Your task to perform on an android device: Open notification settings Image 0: 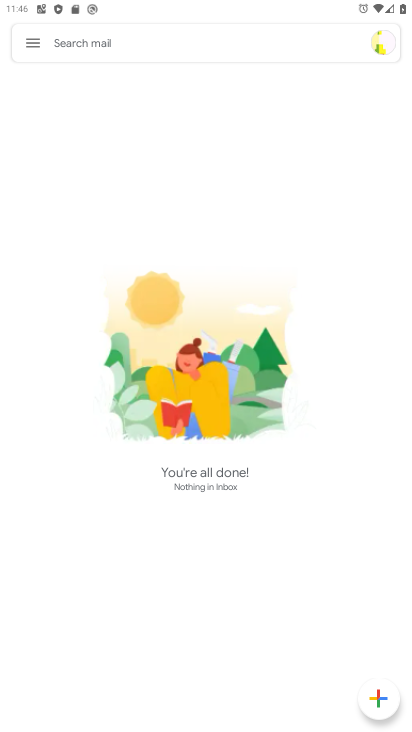
Step 0: press home button
Your task to perform on an android device: Open notification settings Image 1: 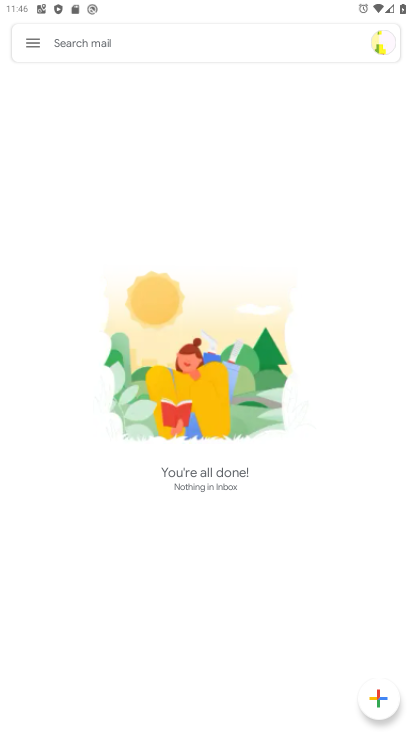
Step 1: press home button
Your task to perform on an android device: Open notification settings Image 2: 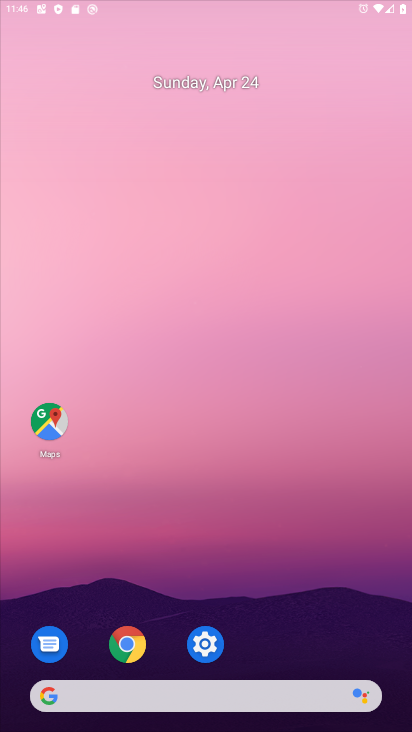
Step 2: press home button
Your task to perform on an android device: Open notification settings Image 3: 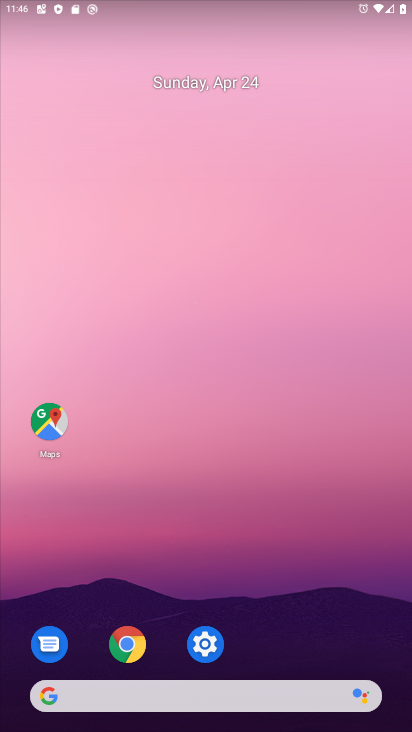
Step 3: drag from (206, 580) to (82, 10)
Your task to perform on an android device: Open notification settings Image 4: 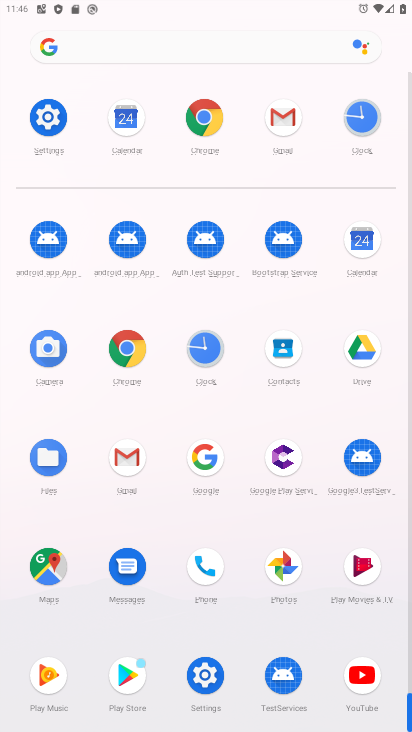
Step 4: click (42, 119)
Your task to perform on an android device: Open notification settings Image 5: 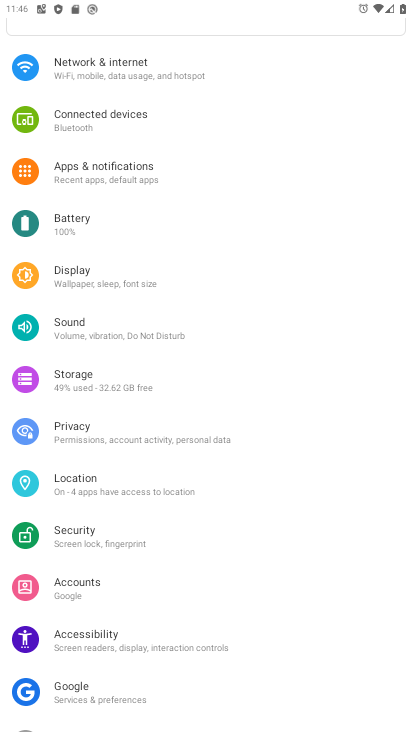
Step 5: click (95, 158)
Your task to perform on an android device: Open notification settings Image 6: 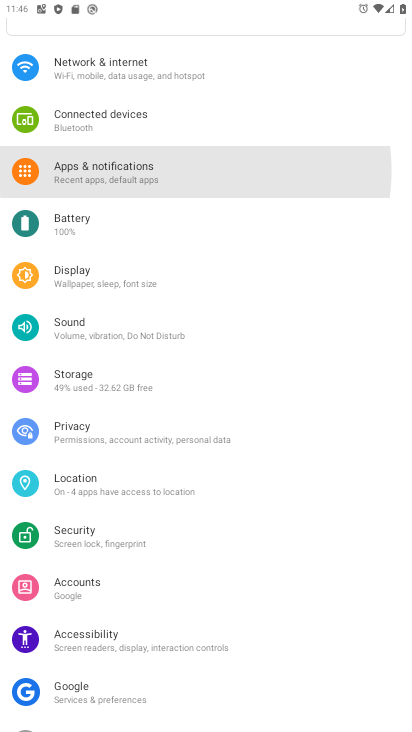
Step 6: click (95, 158)
Your task to perform on an android device: Open notification settings Image 7: 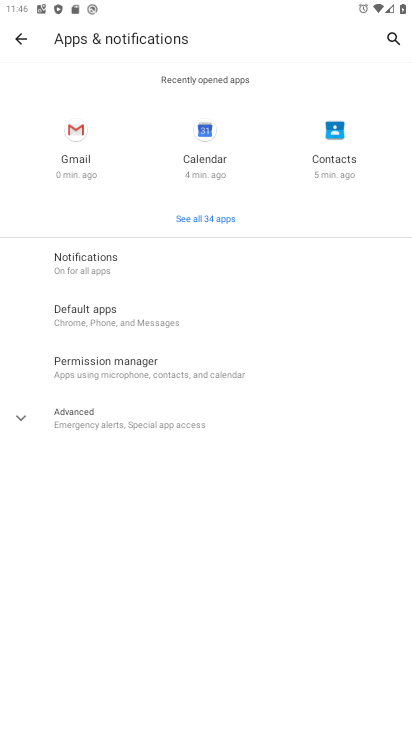
Step 7: click (57, 261)
Your task to perform on an android device: Open notification settings Image 8: 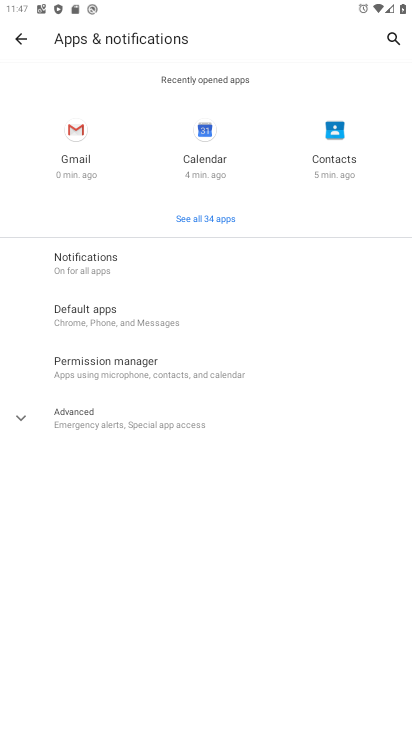
Step 8: click (61, 256)
Your task to perform on an android device: Open notification settings Image 9: 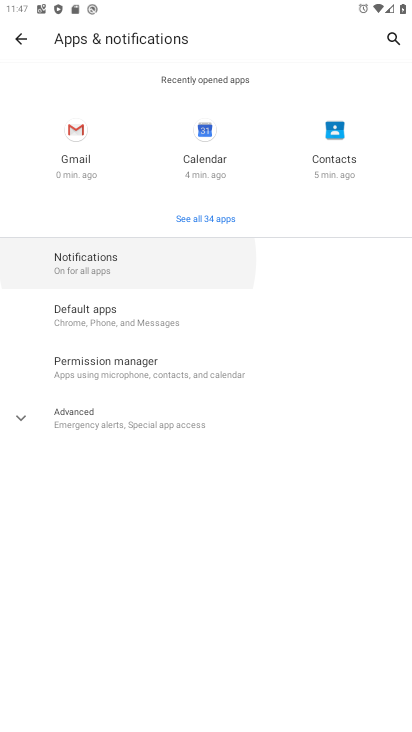
Step 9: click (61, 256)
Your task to perform on an android device: Open notification settings Image 10: 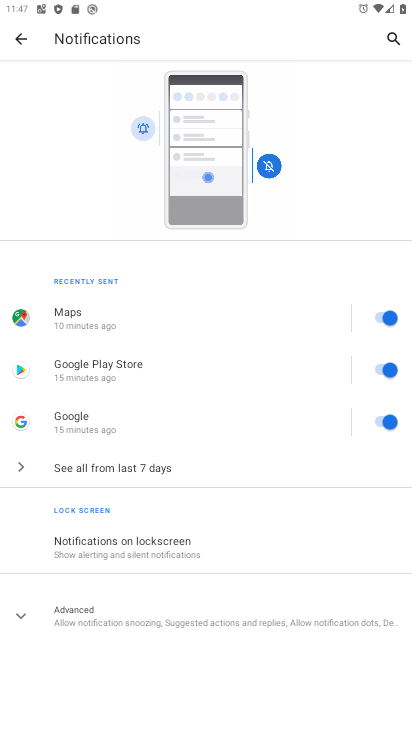
Step 10: drag from (166, 356) to (66, 24)
Your task to perform on an android device: Open notification settings Image 11: 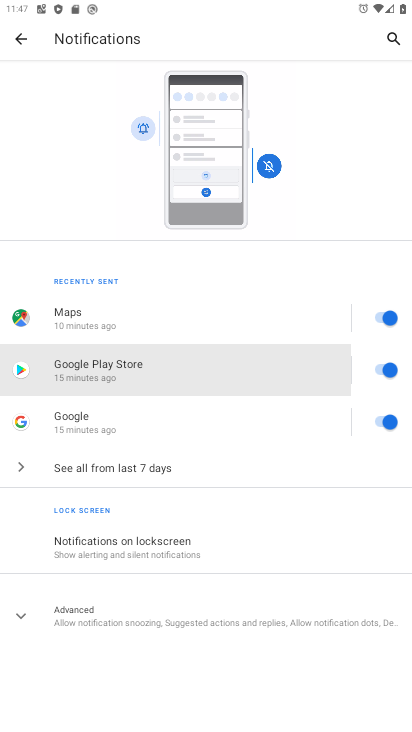
Step 11: drag from (126, 218) to (120, 30)
Your task to perform on an android device: Open notification settings Image 12: 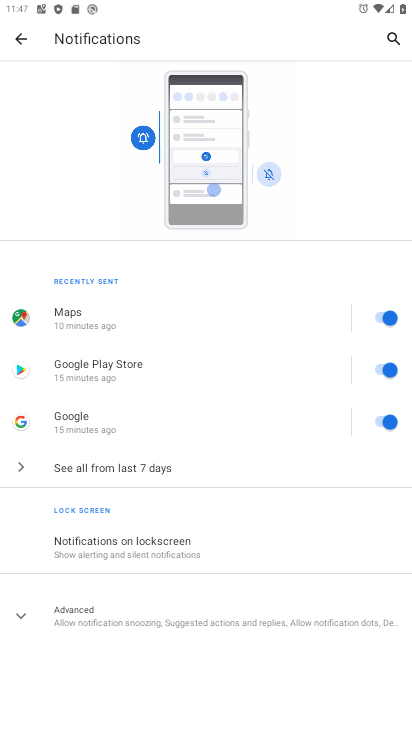
Step 12: click (108, 542)
Your task to perform on an android device: Open notification settings Image 13: 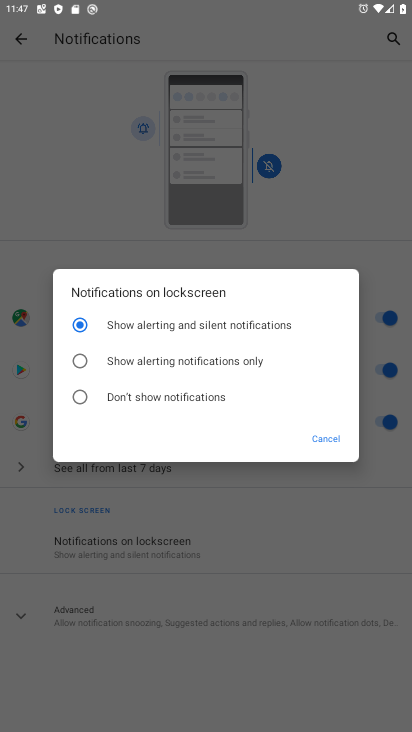
Step 13: click (19, 40)
Your task to perform on an android device: Open notification settings Image 14: 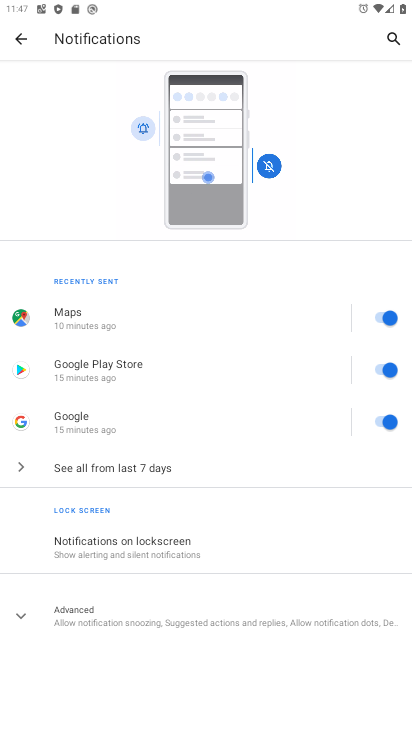
Step 14: click (105, 69)
Your task to perform on an android device: Open notification settings Image 15: 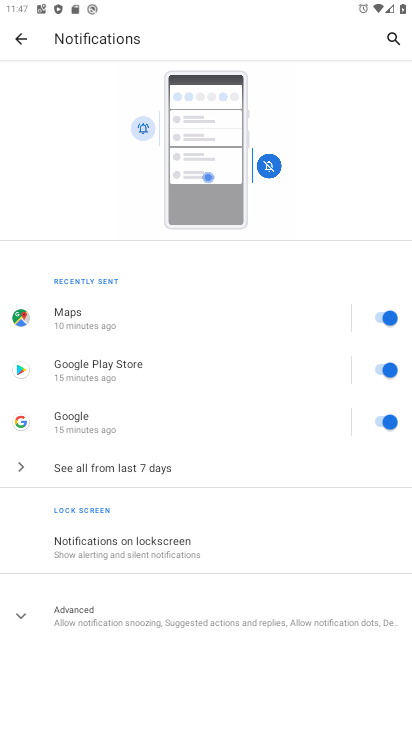
Step 15: drag from (189, 463) to (110, 29)
Your task to perform on an android device: Open notification settings Image 16: 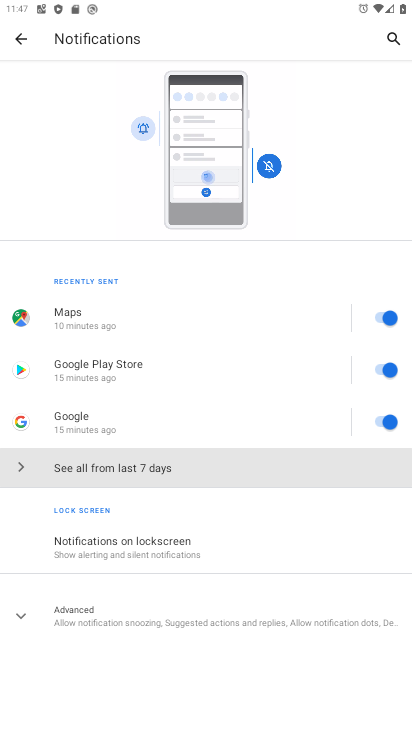
Step 16: drag from (192, 442) to (139, 40)
Your task to perform on an android device: Open notification settings Image 17: 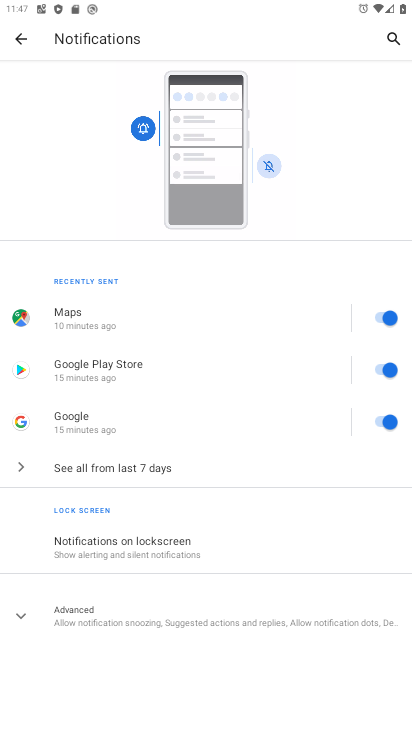
Step 17: click (98, 614)
Your task to perform on an android device: Open notification settings Image 18: 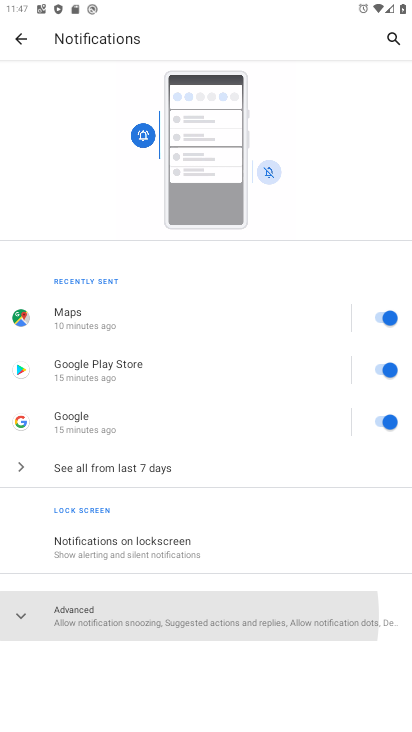
Step 18: click (98, 614)
Your task to perform on an android device: Open notification settings Image 19: 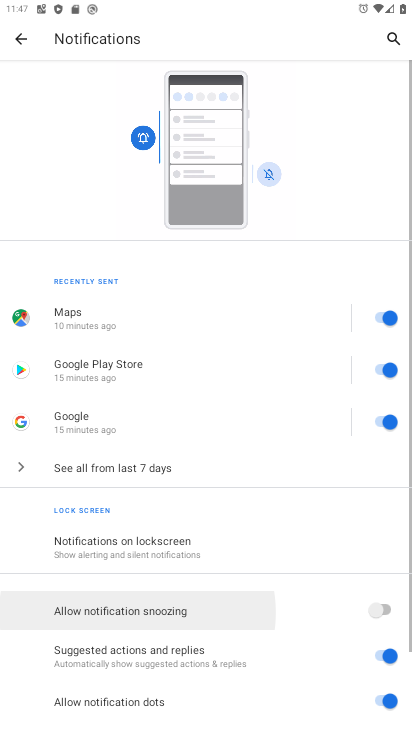
Step 19: click (98, 614)
Your task to perform on an android device: Open notification settings Image 20: 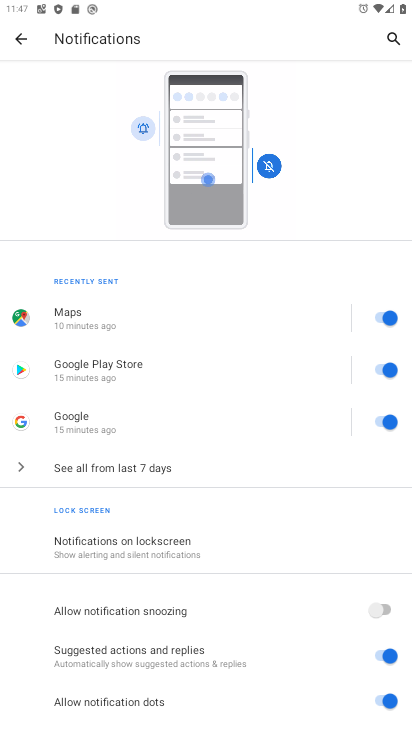
Step 20: click (386, 697)
Your task to perform on an android device: Open notification settings Image 21: 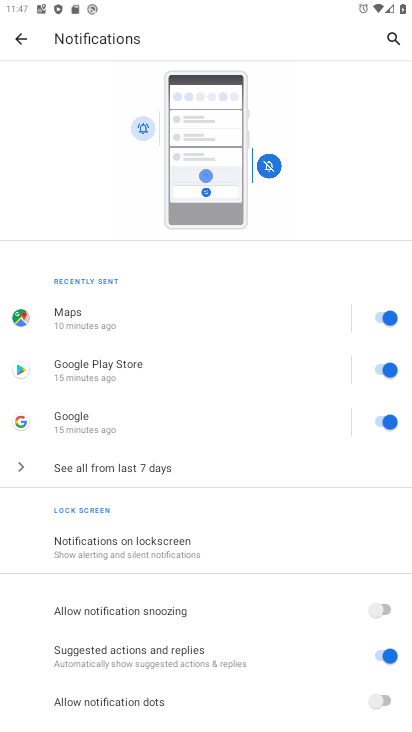
Step 21: task complete